Your task to perform on an android device: toggle wifi Image 0: 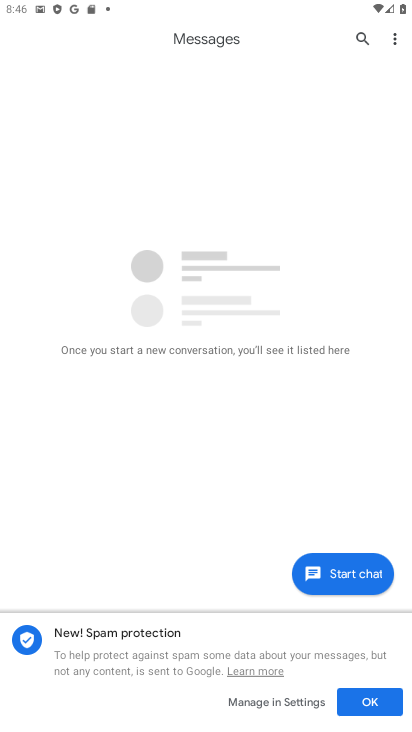
Step 0: press home button
Your task to perform on an android device: toggle wifi Image 1: 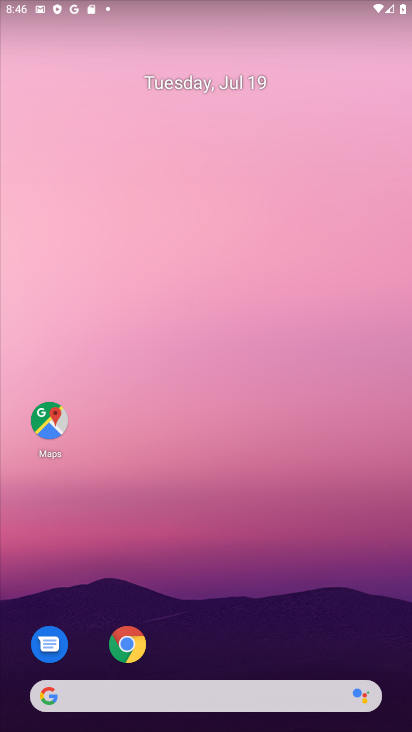
Step 1: drag from (260, 621) to (229, 94)
Your task to perform on an android device: toggle wifi Image 2: 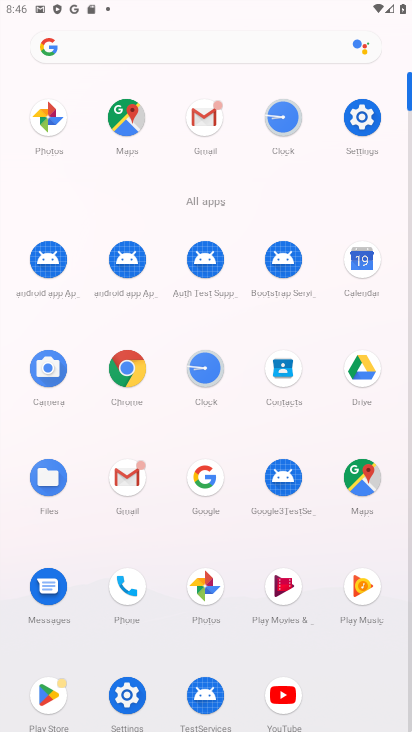
Step 2: click (367, 105)
Your task to perform on an android device: toggle wifi Image 3: 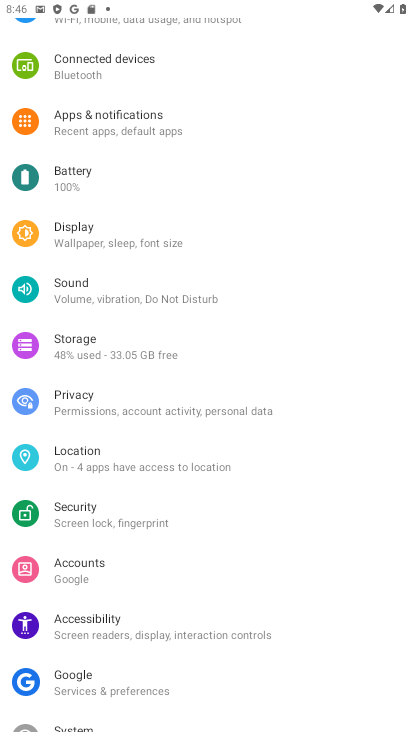
Step 3: drag from (180, 235) to (170, 726)
Your task to perform on an android device: toggle wifi Image 4: 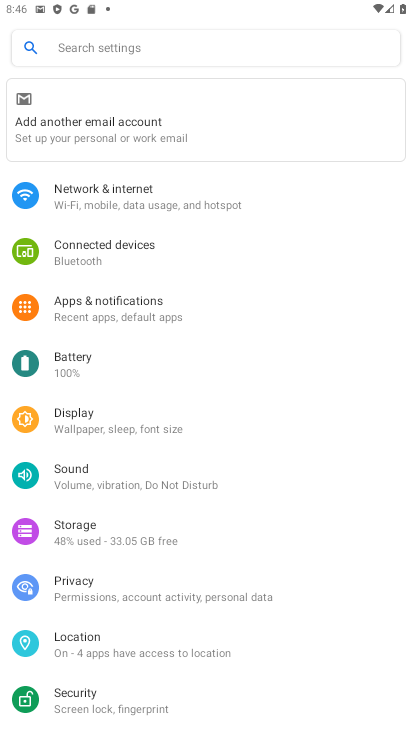
Step 4: click (275, 212)
Your task to perform on an android device: toggle wifi Image 5: 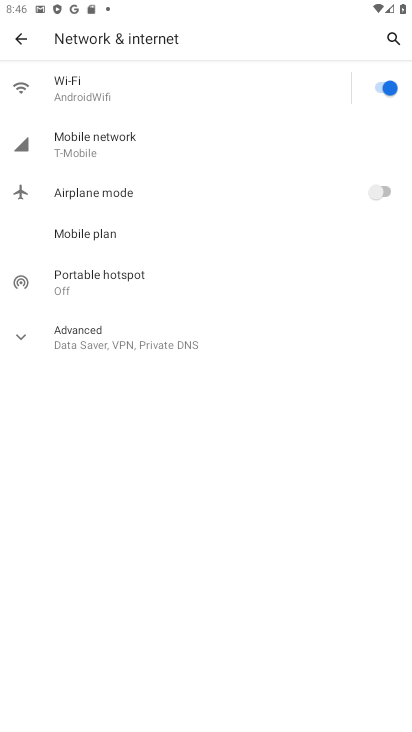
Step 5: click (380, 95)
Your task to perform on an android device: toggle wifi Image 6: 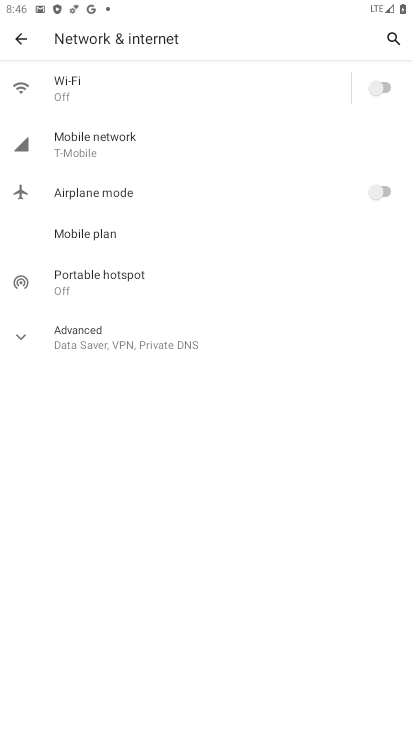
Step 6: task complete